Your task to perform on an android device: open sync settings in chrome Image 0: 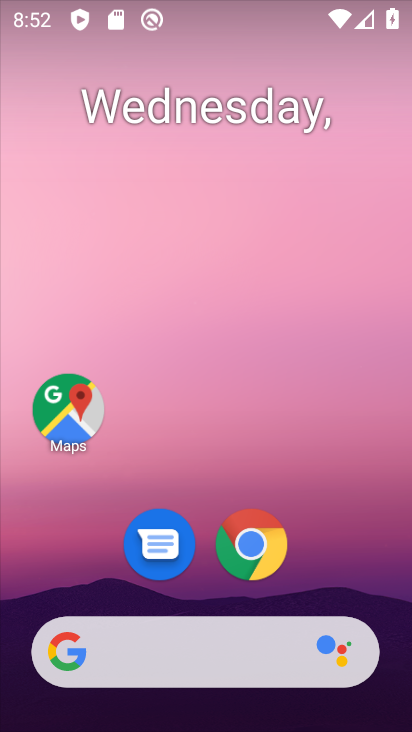
Step 0: drag from (153, 642) to (335, 38)
Your task to perform on an android device: open sync settings in chrome Image 1: 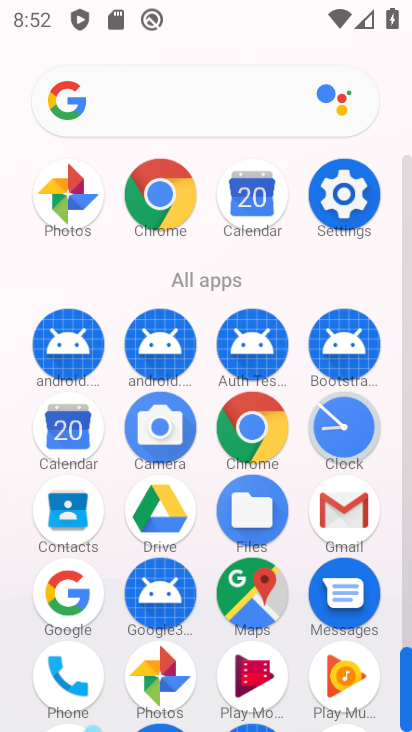
Step 1: click (173, 201)
Your task to perform on an android device: open sync settings in chrome Image 2: 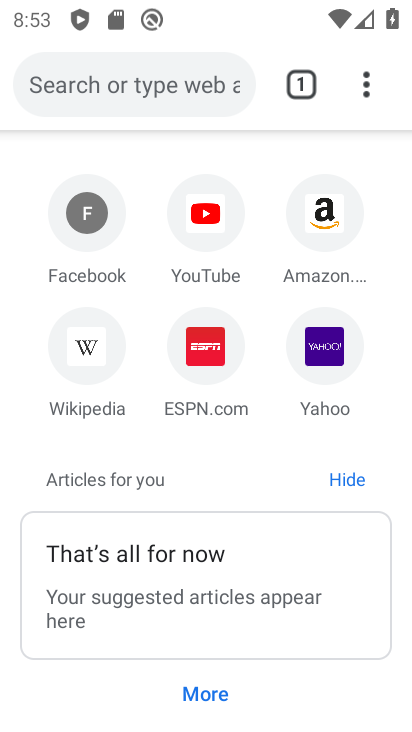
Step 2: click (358, 98)
Your task to perform on an android device: open sync settings in chrome Image 3: 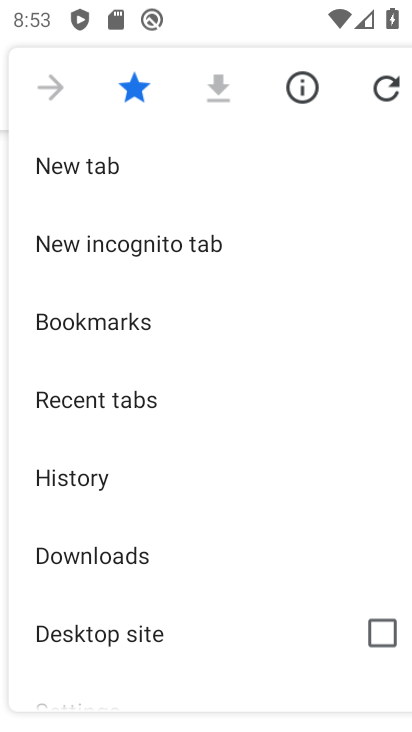
Step 3: drag from (173, 544) to (382, 80)
Your task to perform on an android device: open sync settings in chrome Image 4: 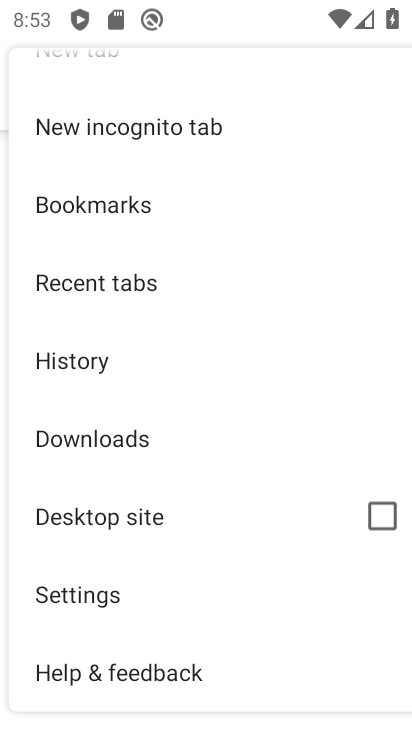
Step 4: click (71, 593)
Your task to perform on an android device: open sync settings in chrome Image 5: 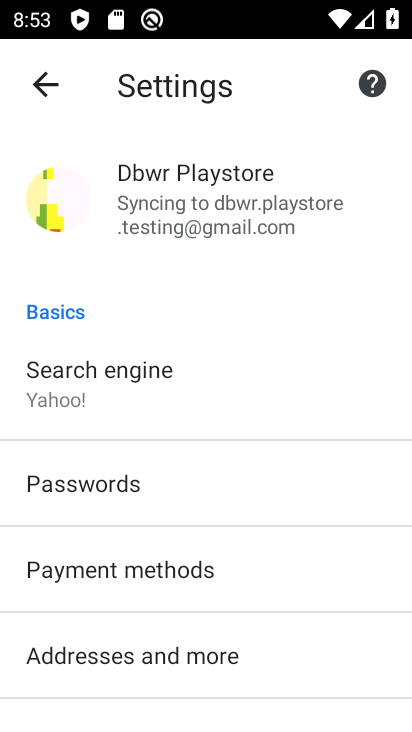
Step 5: click (249, 208)
Your task to perform on an android device: open sync settings in chrome Image 6: 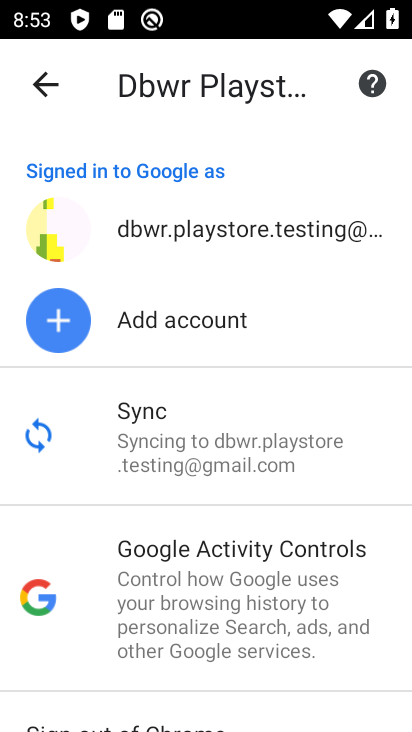
Step 6: click (205, 434)
Your task to perform on an android device: open sync settings in chrome Image 7: 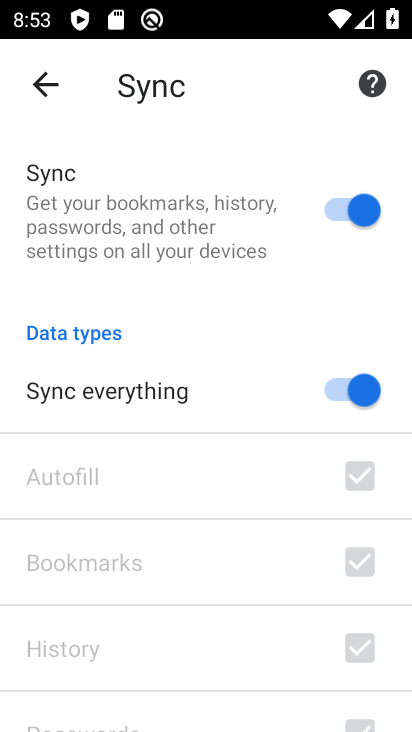
Step 7: task complete